Your task to perform on an android device: check storage Image 0: 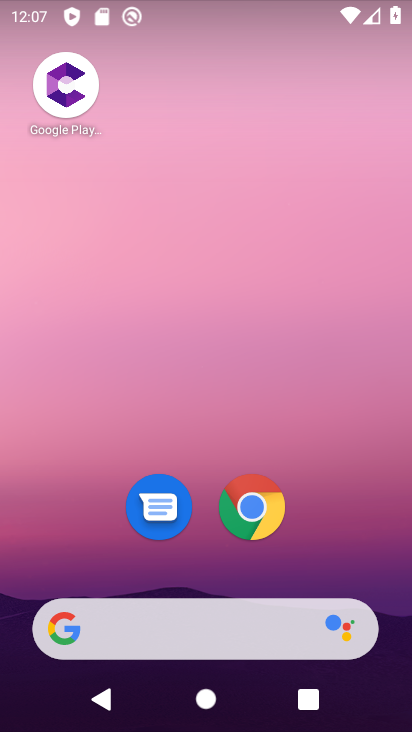
Step 0: drag from (216, 581) to (215, 0)
Your task to perform on an android device: check storage Image 1: 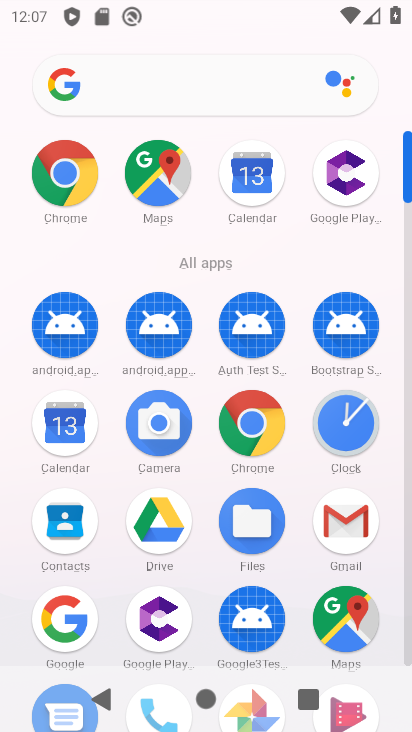
Step 1: drag from (203, 567) to (130, 70)
Your task to perform on an android device: check storage Image 2: 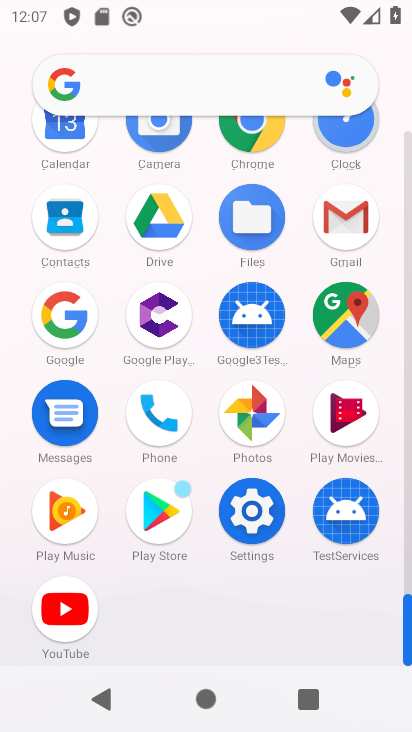
Step 2: click (244, 539)
Your task to perform on an android device: check storage Image 3: 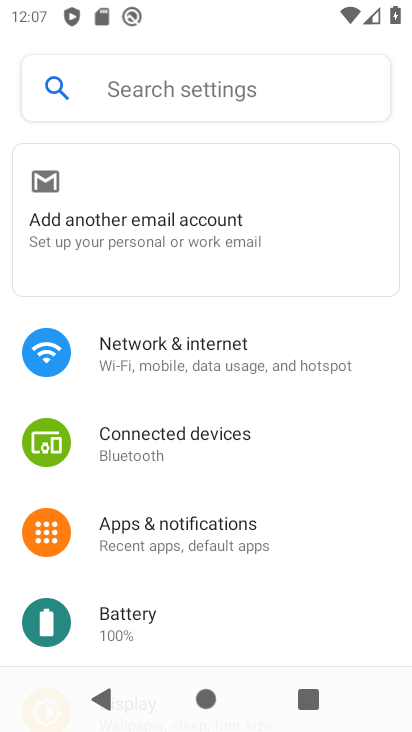
Step 3: drag from (166, 531) to (128, 0)
Your task to perform on an android device: check storage Image 4: 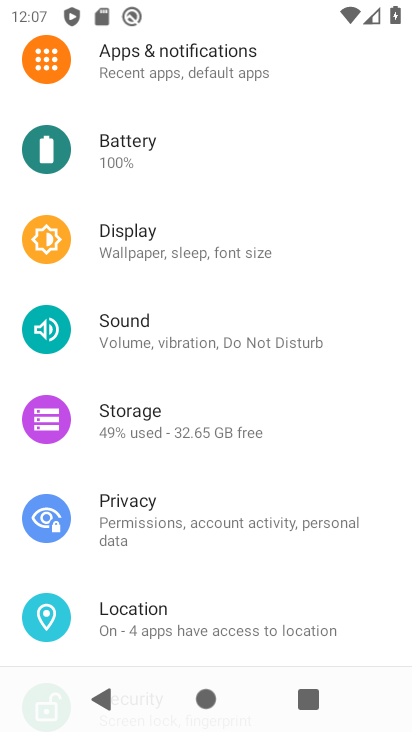
Step 4: click (161, 397)
Your task to perform on an android device: check storage Image 5: 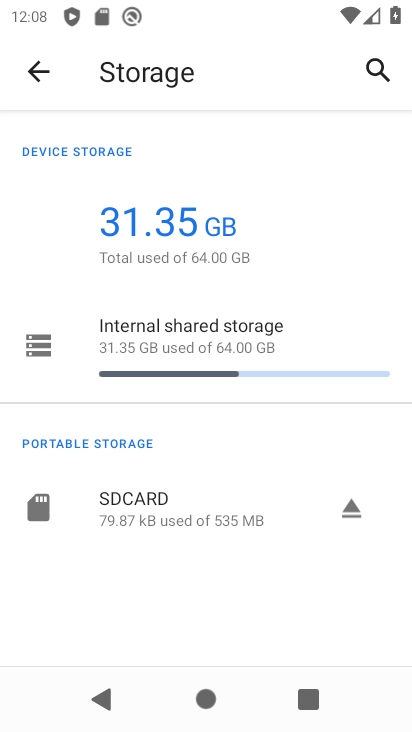
Step 5: task complete